Your task to perform on an android device: Empty the shopping cart on target. Add razer thresher to the cart on target, then select checkout. Image 0: 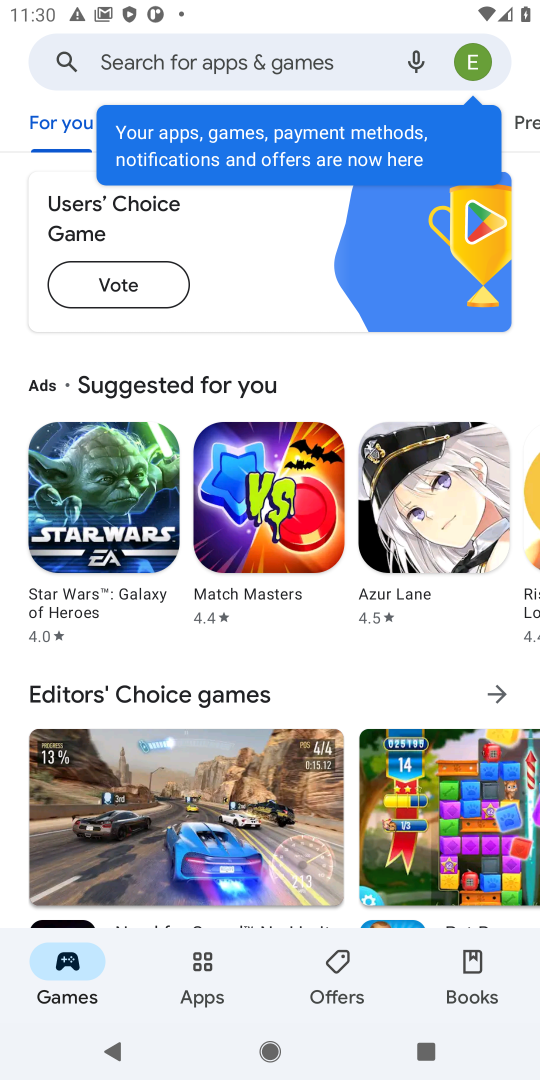
Step 0: press home button
Your task to perform on an android device: Empty the shopping cart on target. Add razer thresher to the cart on target, then select checkout. Image 1: 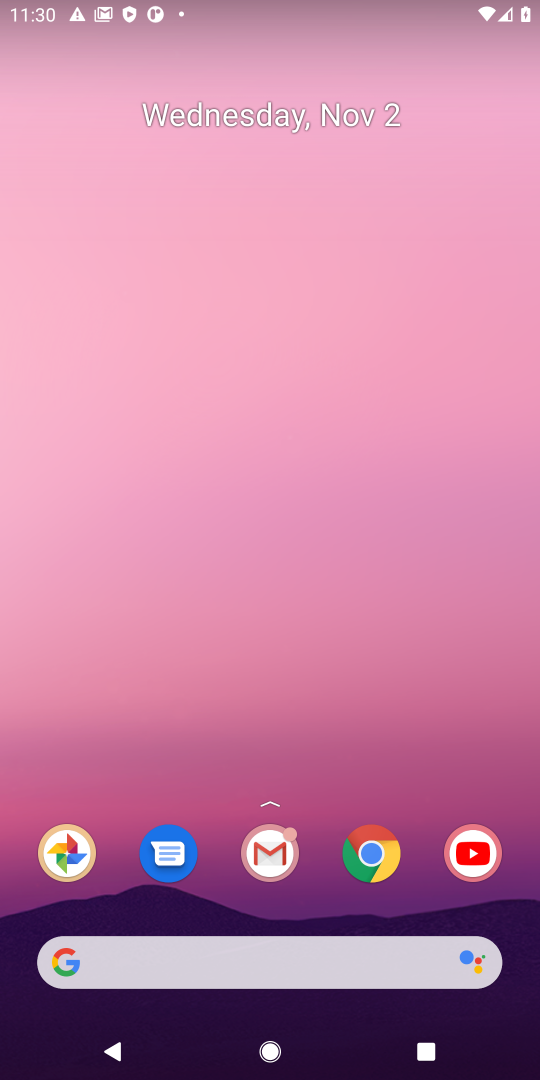
Step 1: click (381, 854)
Your task to perform on an android device: Empty the shopping cart on target. Add razer thresher to the cart on target, then select checkout. Image 2: 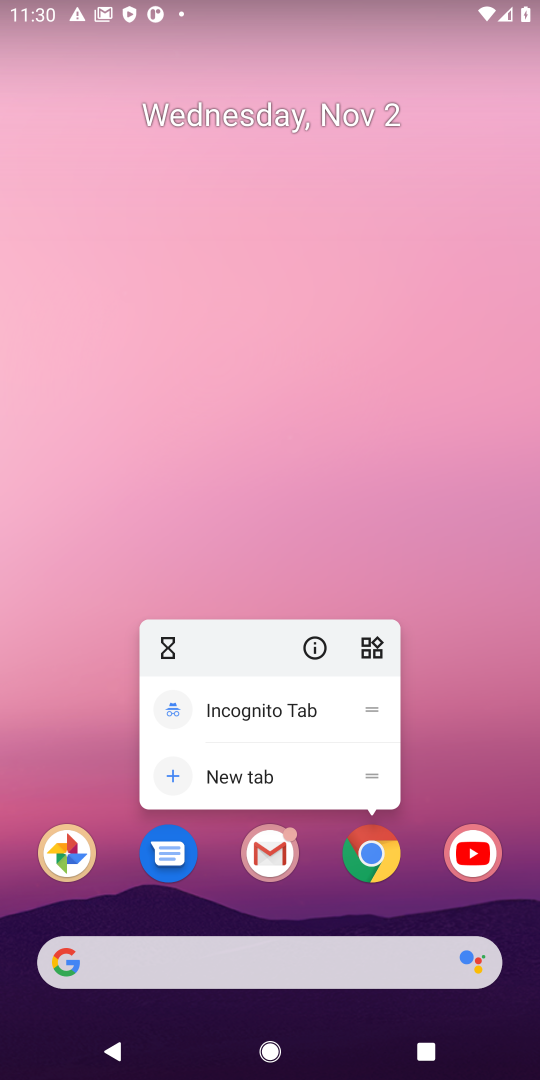
Step 2: click (373, 865)
Your task to perform on an android device: Empty the shopping cart on target. Add razer thresher to the cart on target, then select checkout. Image 3: 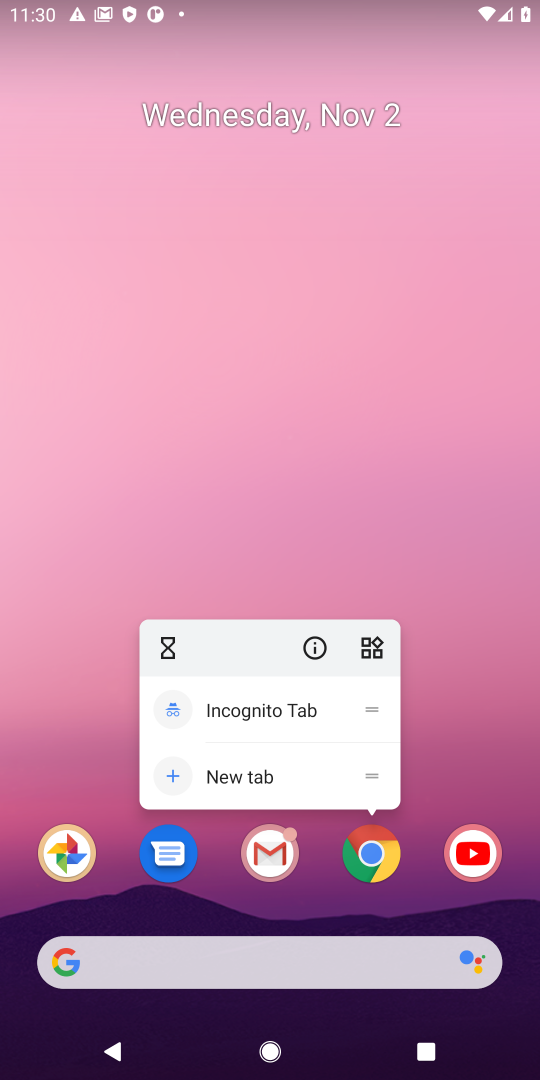
Step 3: click (373, 869)
Your task to perform on an android device: Empty the shopping cart on target. Add razer thresher to the cart on target, then select checkout. Image 4: 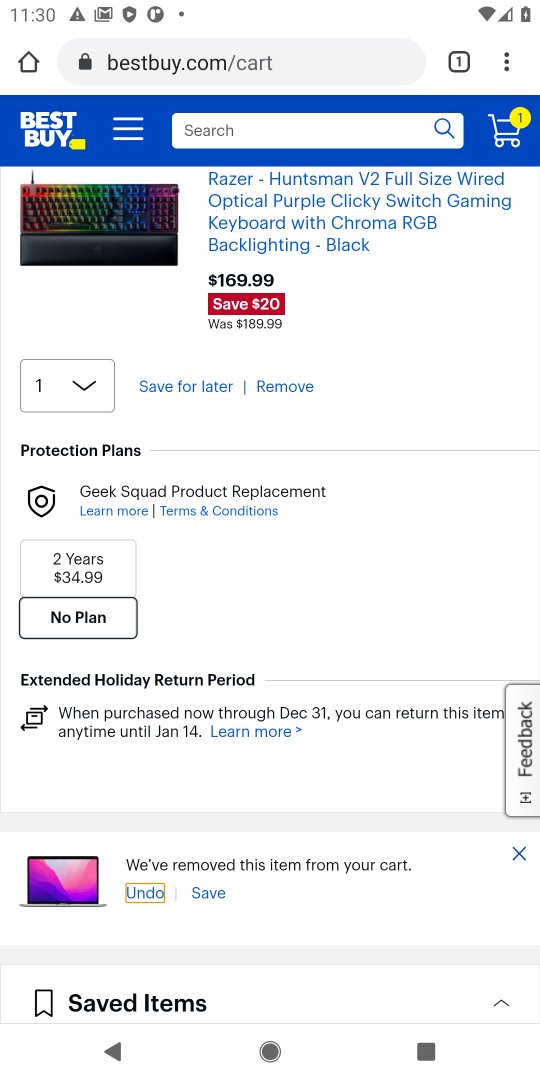
Step 4: click (307, 49)
Your task to perform on an android device: Empty the shopping cart on target. Add razer thresher to the cart on target, then select checkout. Image 5: 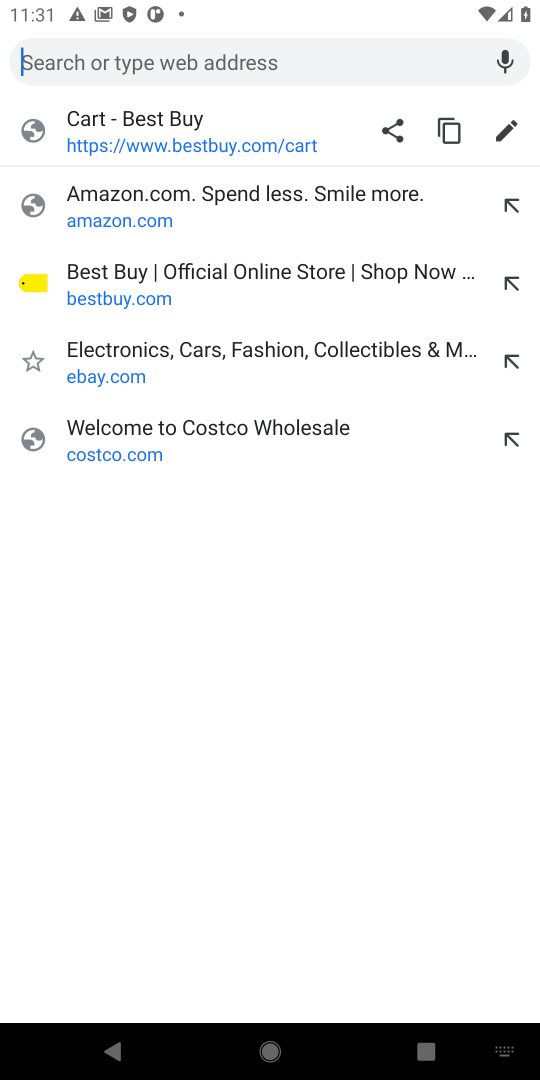
Step 5: type "target"
Your task to perform on an android device: Empty the shopping cart on target. Add razer thresher to the cart on target, then select checkout. Image 6: 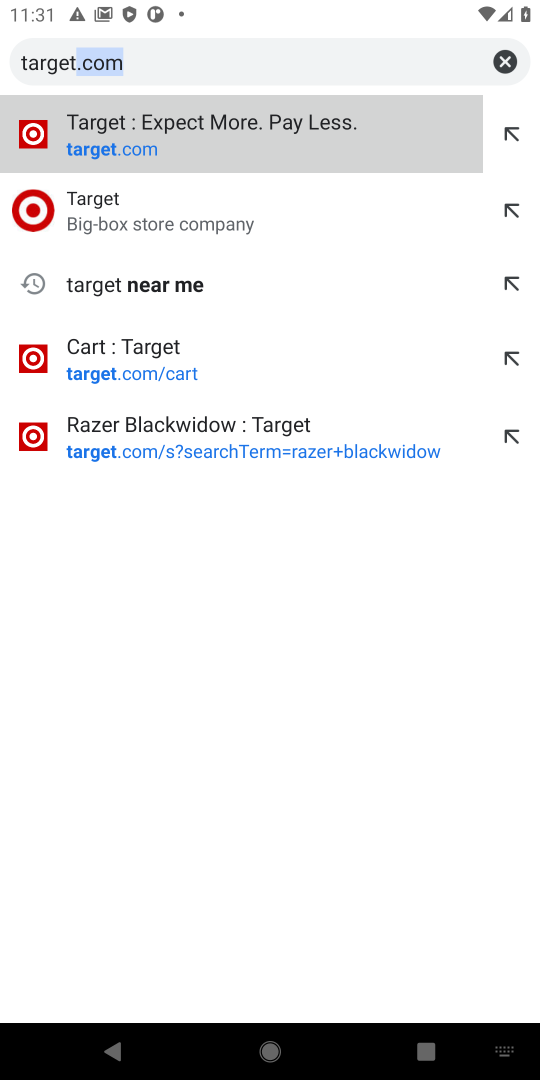
Step 6: press enter
Your task to perform on an android device: Empty the shopping cart on target. Add razer thresher to the cart on target, then select checkout. Image 7: 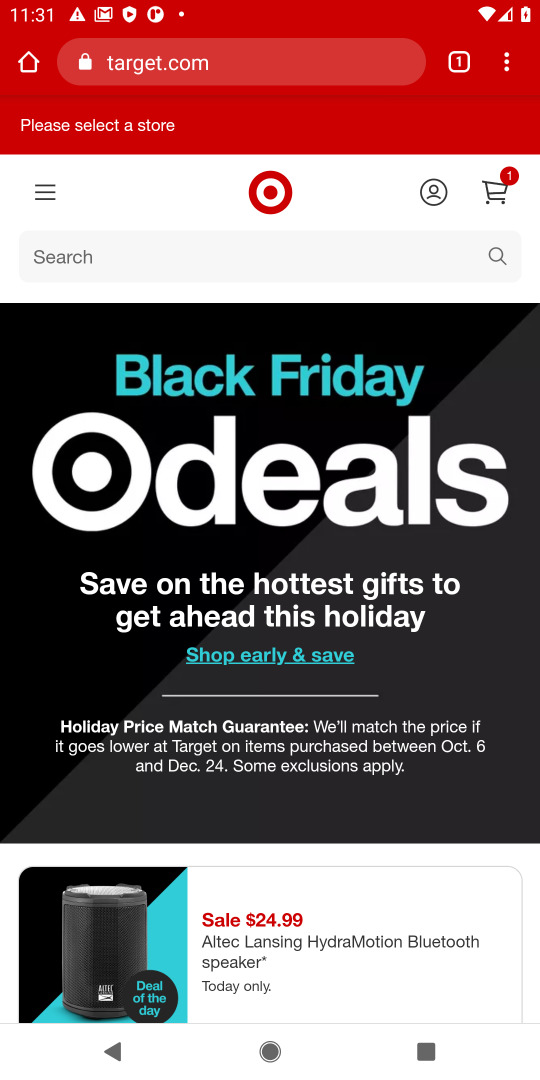
Step 7: click (164, 250)
Your task to perform on an android device: Empty the shopping cart on target. Add razer thresher to the cart on target, then select checkout. Image 8: 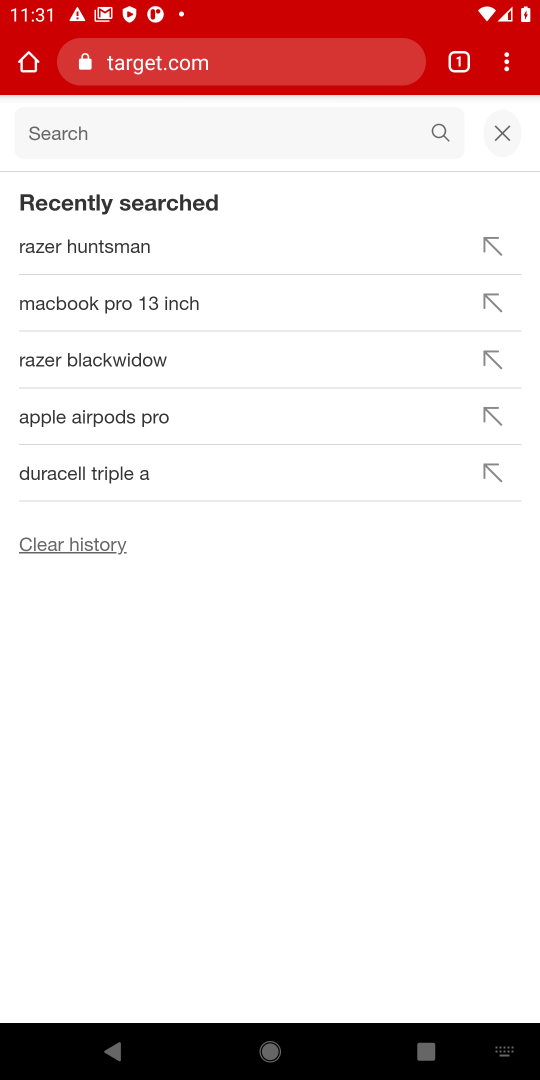
Step 8: type "razer thresher"
Your task to perform on an android device: Empty the shopping cart on target. Add razer thresher to the cart on target, then select checkout. Image 9: 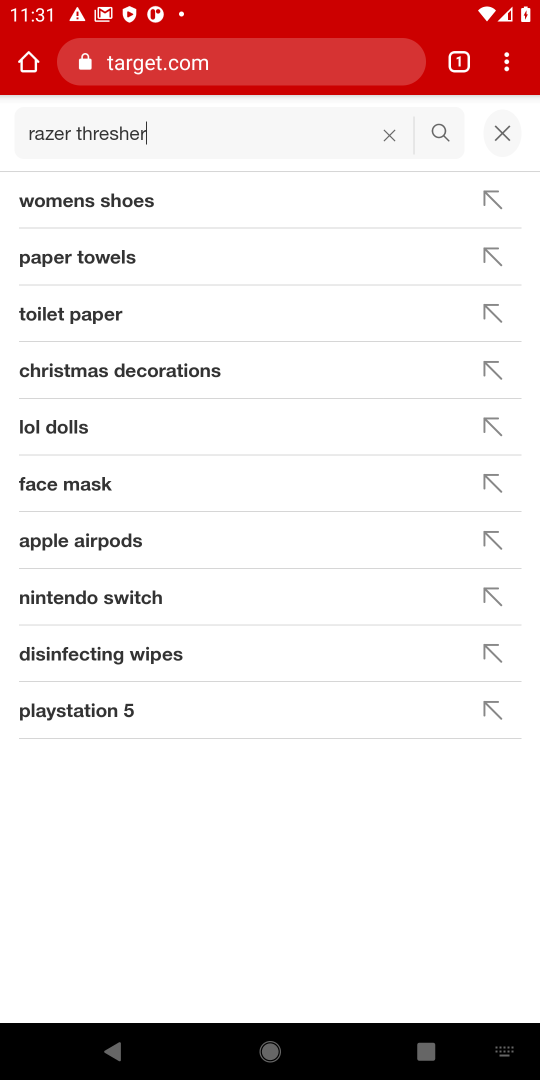
Step 9: press enter
Your task to perform on an android device: Empty the shopping cart on target. Add razer thresher to the cart on target, then select checkout. Image 10: 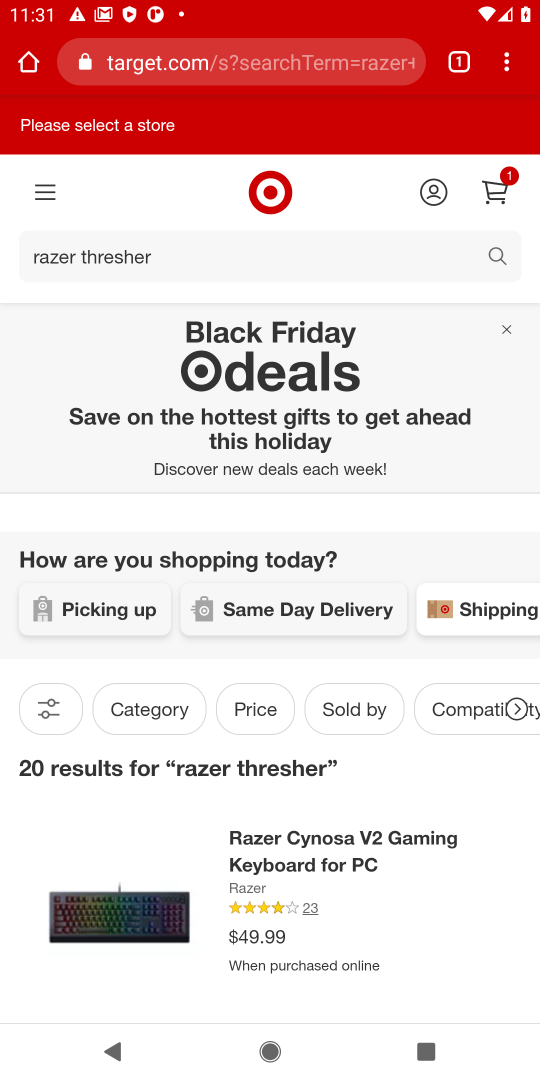
Step 10: task complete